Your task to perform on an android device: Search for beats solo 3 on costco.com, select the first entry, and add it to the cart. Image 0: 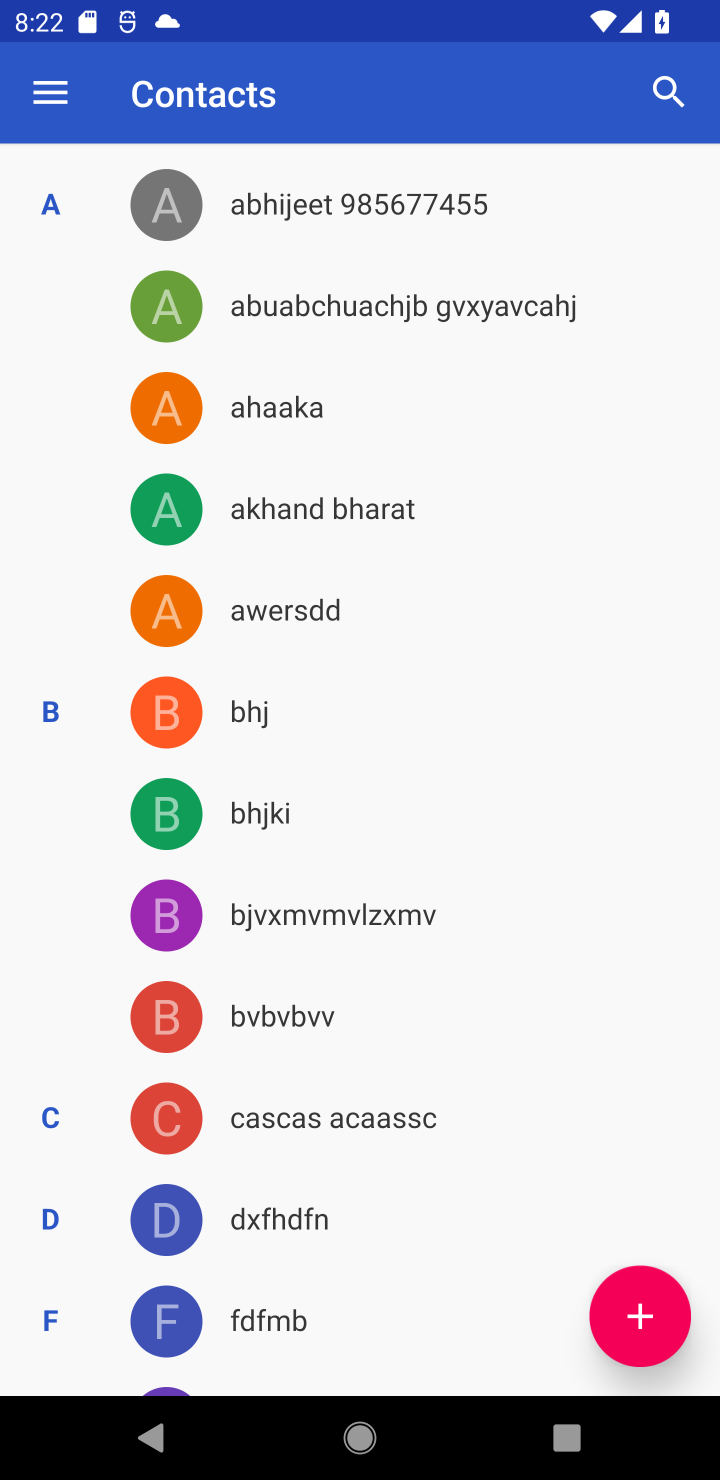
Step 0: press home button
Your task to perform on an android device: Search for beats solo 3 on costco.com, select the first entry, and add it to the cart. Image 1: 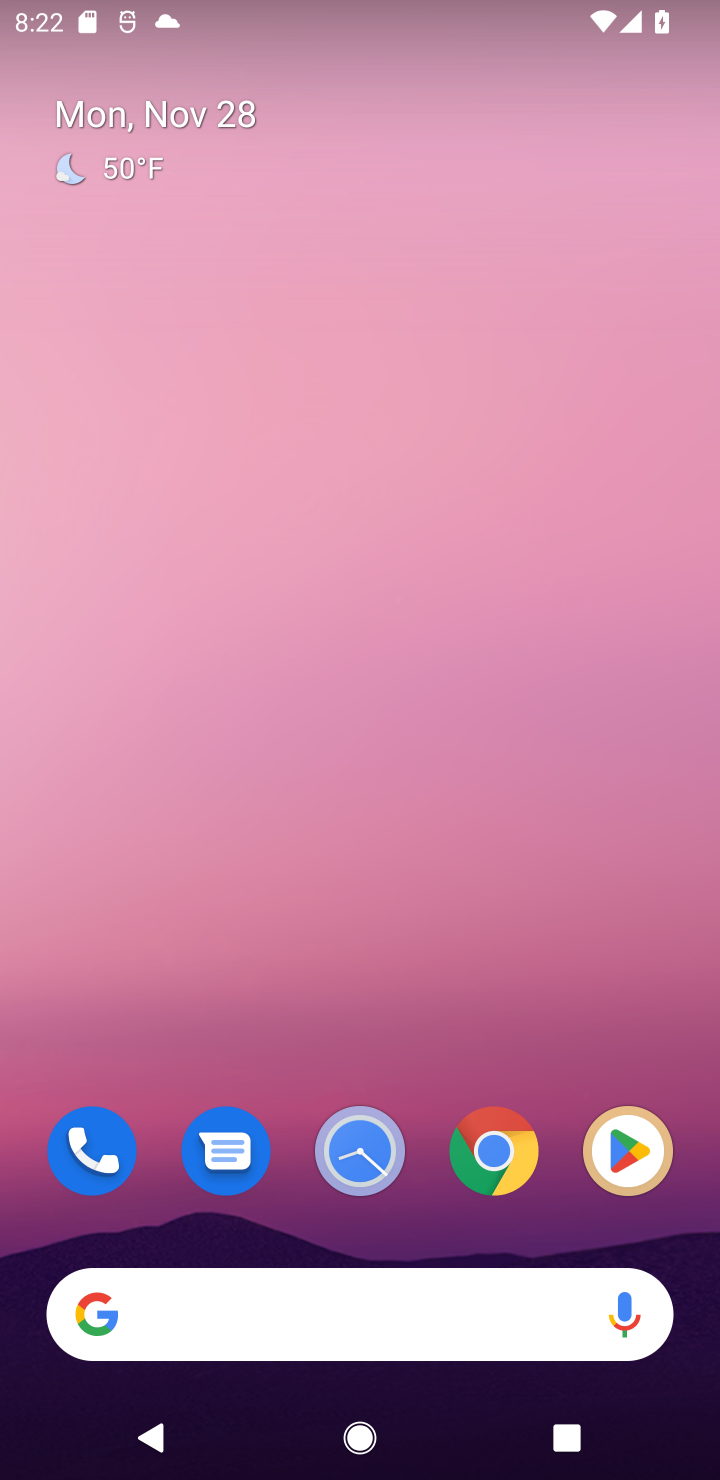
Step 1: click (297, 1327)
Your task to perform on an android device: Search for beats solo 3 on costco.com, select the first entry, and add it to the cart. Image 2: 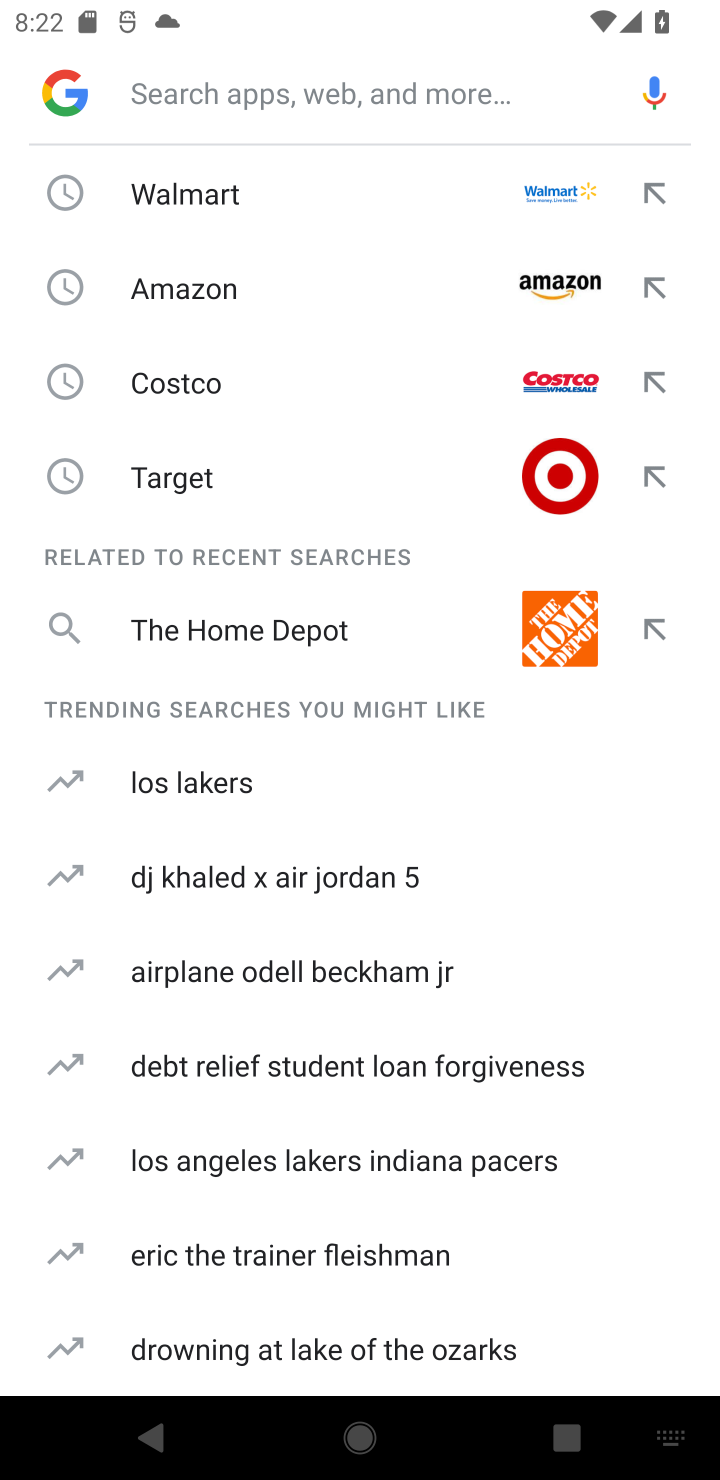
Step 2: type "beats solo 3"
Your task to perform on an android device: Search for beats solo 3 on costco.com, select the first entry, and add it to the cart. Image 3: 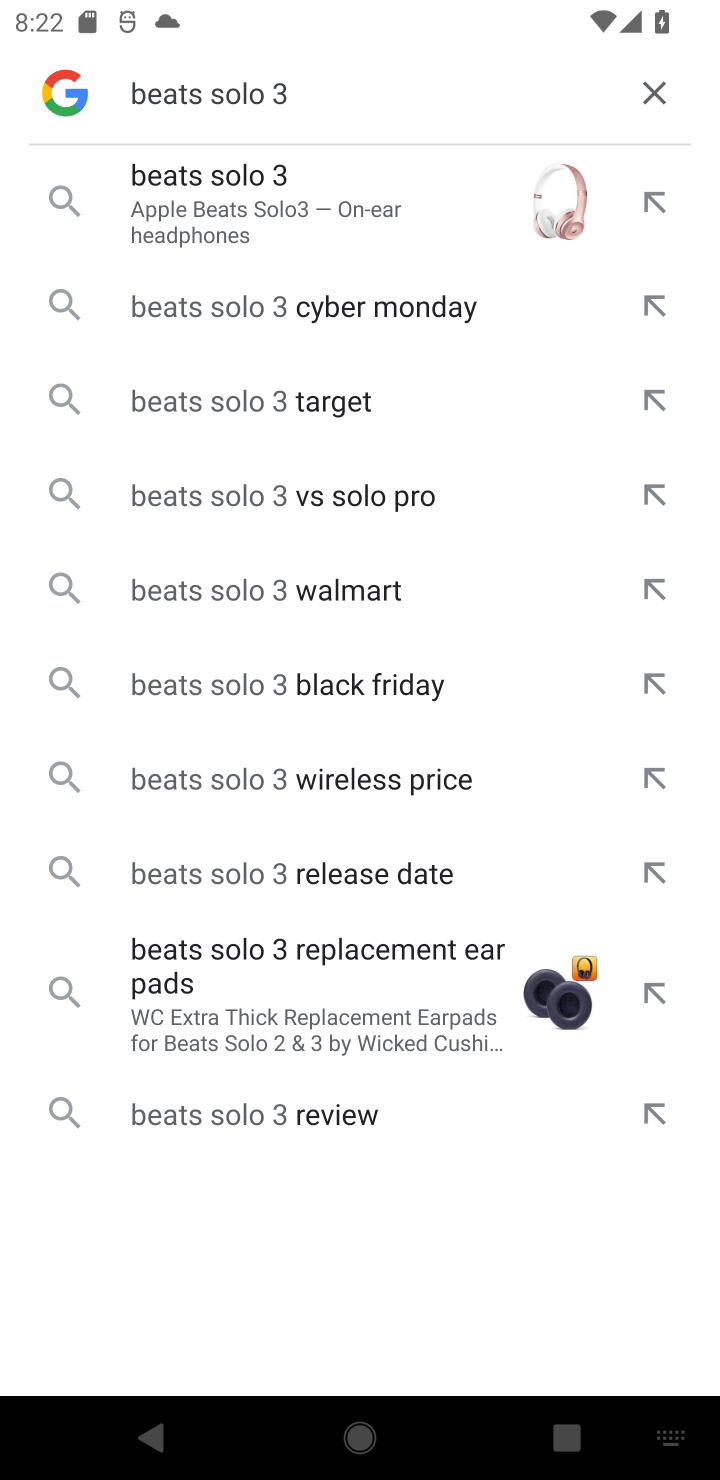
Step 3: click (198, 206)
Your task to perform on an android device: Search for beats solo 3 on costco.com, select the first entry, and add it to the cart. Image 4: 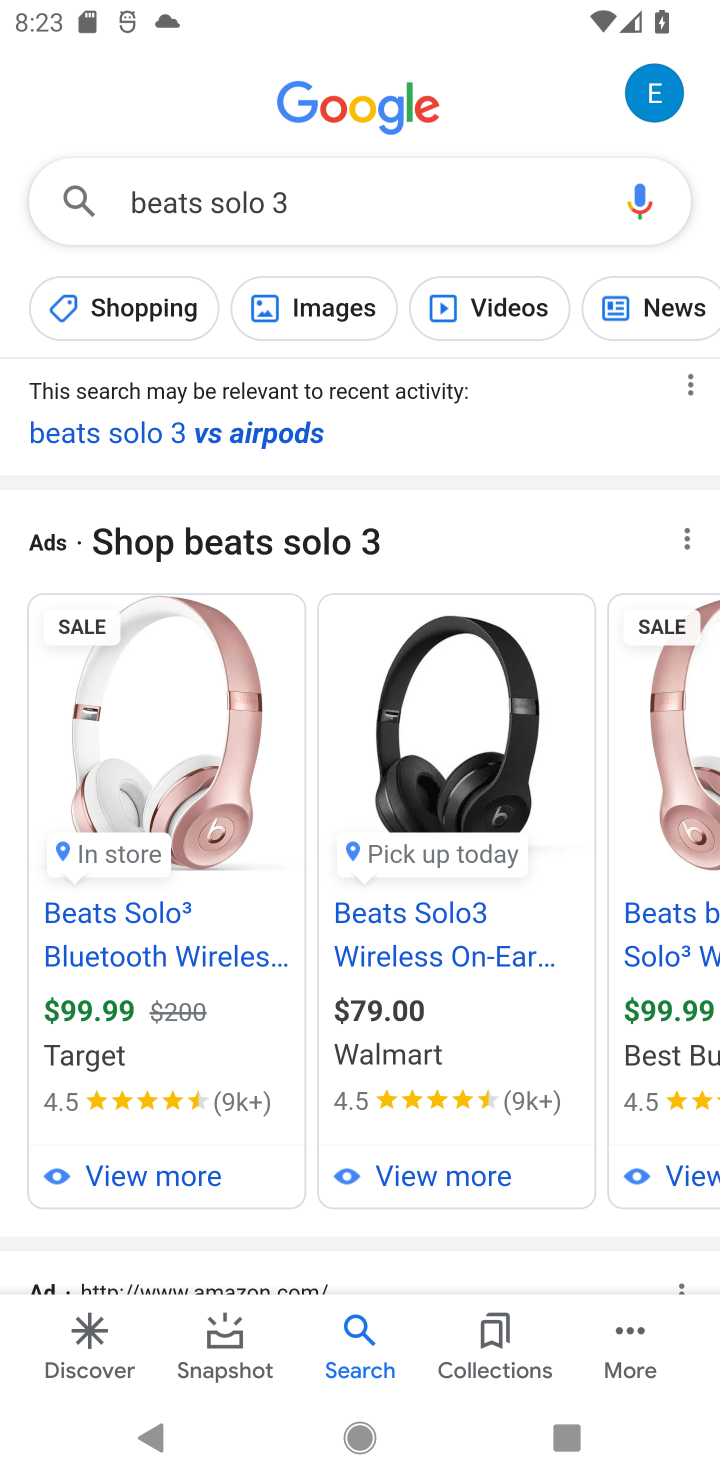
Step 4: task complete